Your task to perform on an android device: Show me recent news Image 0: 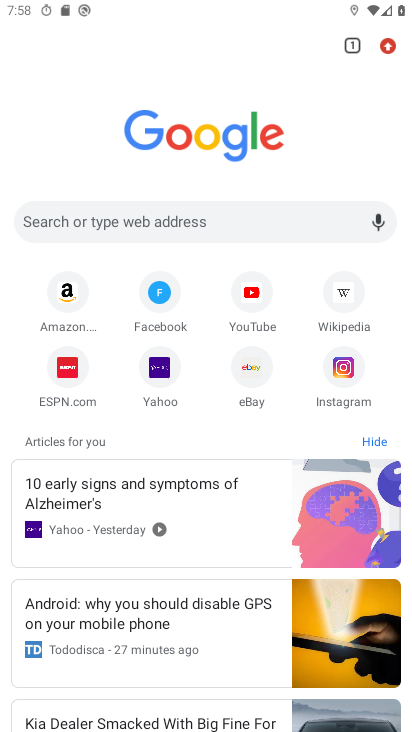
Step 0: press home button
Your task to perform on an android device: Show me recent news Image 1: 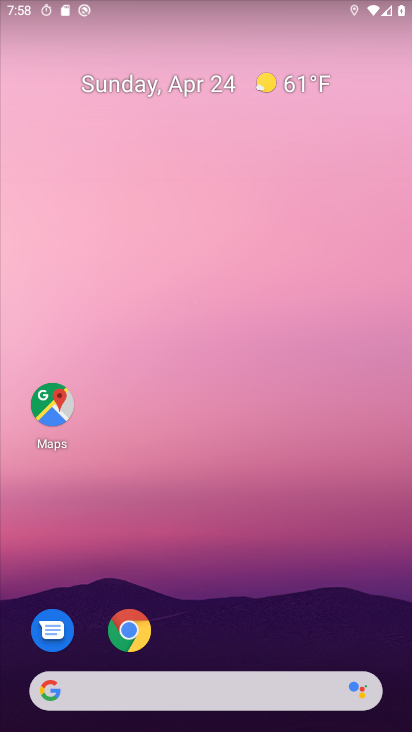
Step 1: task complete